Your task to perform on an android device: Clear the cart on amazon.com. Add "razer blade" to the cart on amazon.com, then select checkout. Image 0: 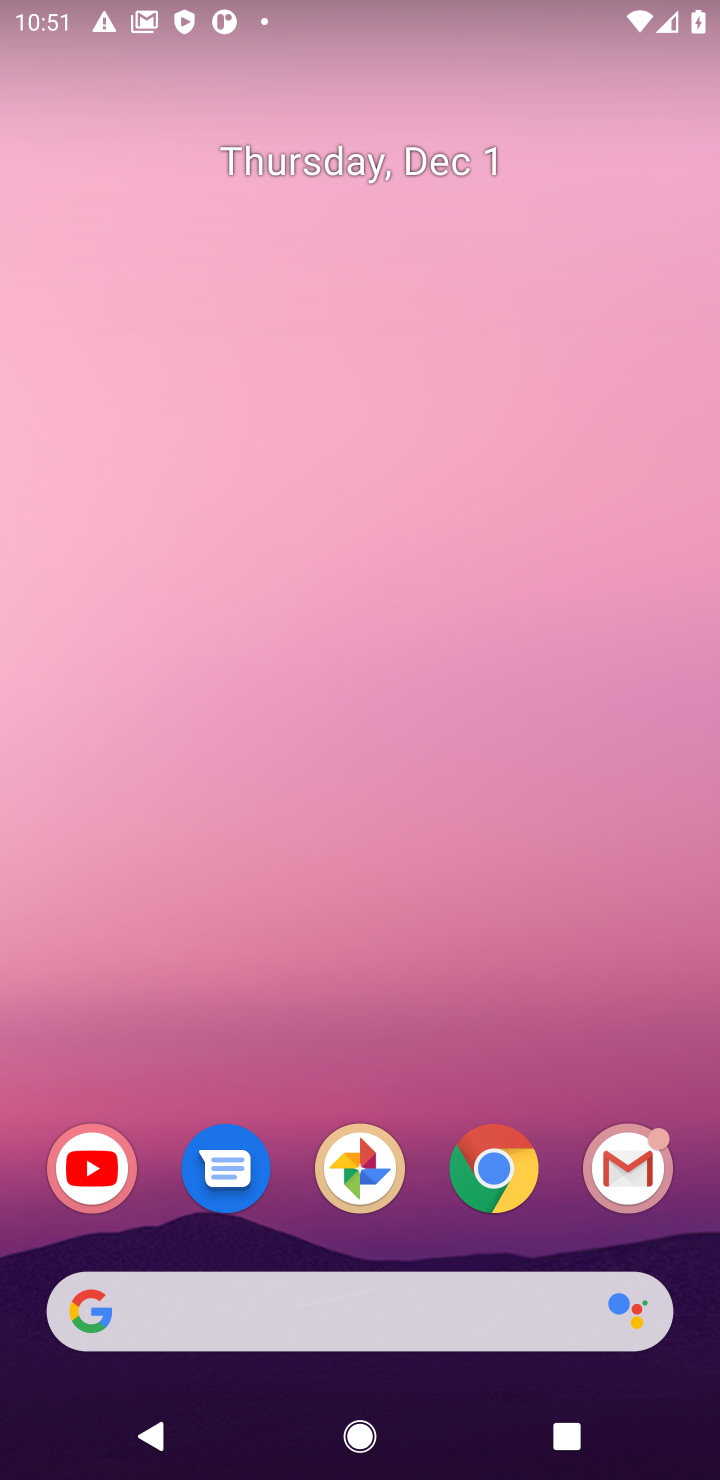
Step 0: click (504, 1194)
Your task to perform on an android device: Clear the cart on amazon.com. Add "razer blade" to the cart on amazon.com, then select checkout. Image 1: 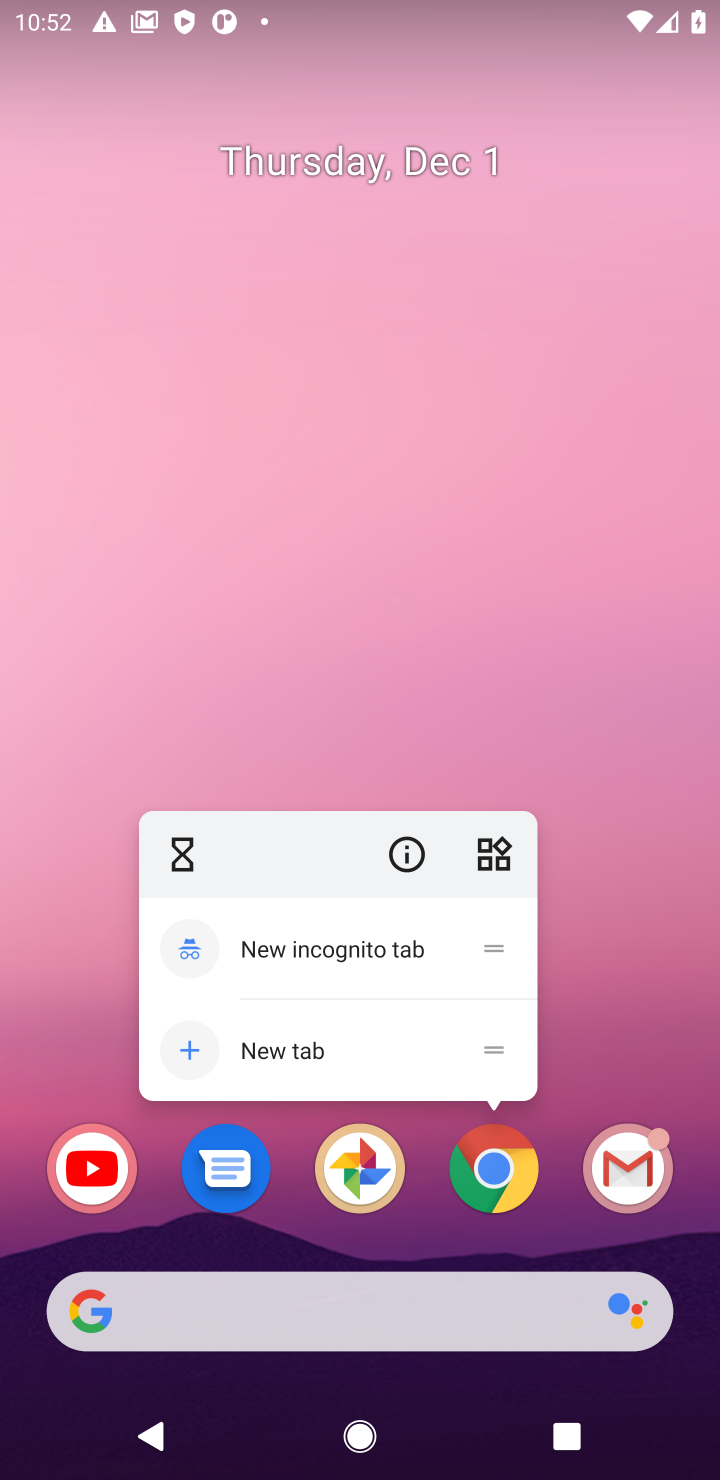
Step 1: click (502, 1194)
Your task to perform on an android device: Clear the cart on amazon.com. Add "razer blade" to the cart on amazon.com, then select checkout. Image 2: 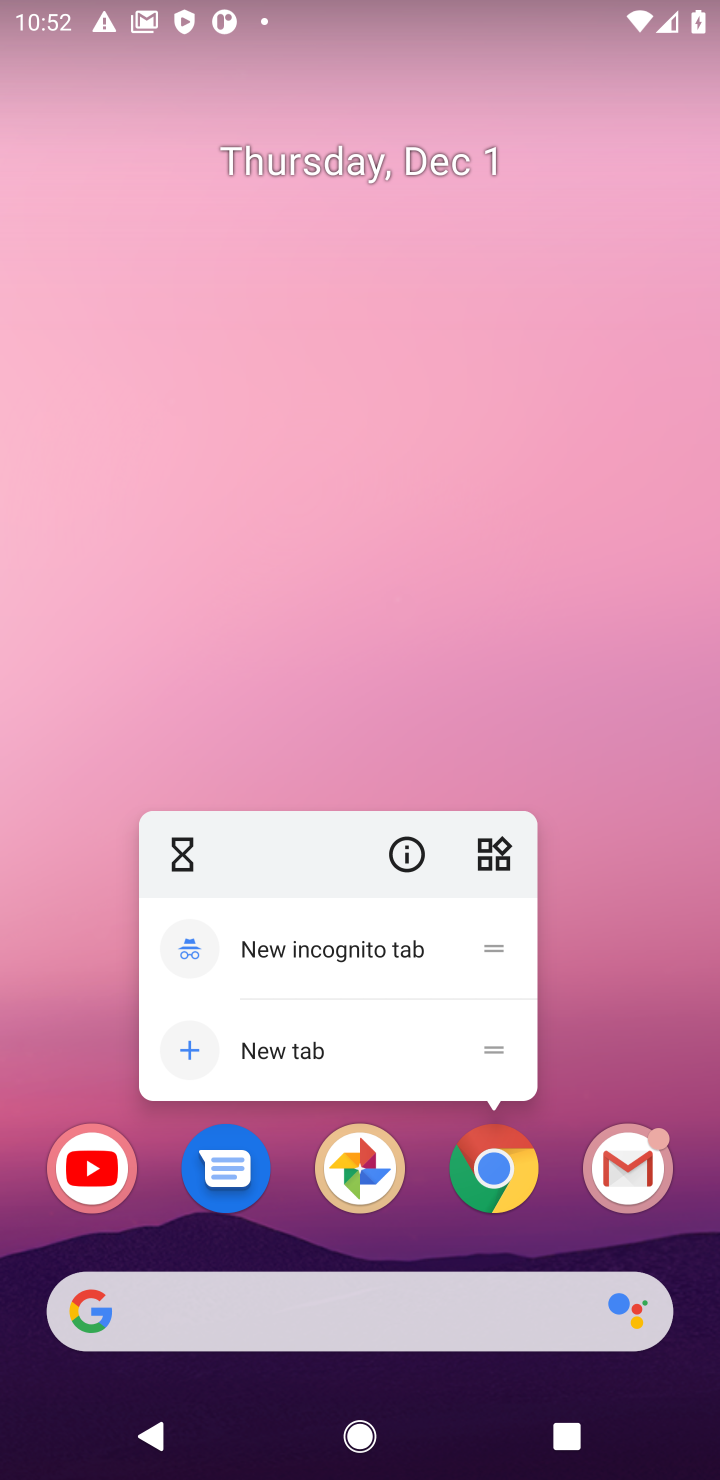
Step 2: click (508, 1173)
Your task to perform on an android device: Clear the cart on amazon.com. Add "razer blade" to the cart on amazon.com, then select checkout. Image 3: 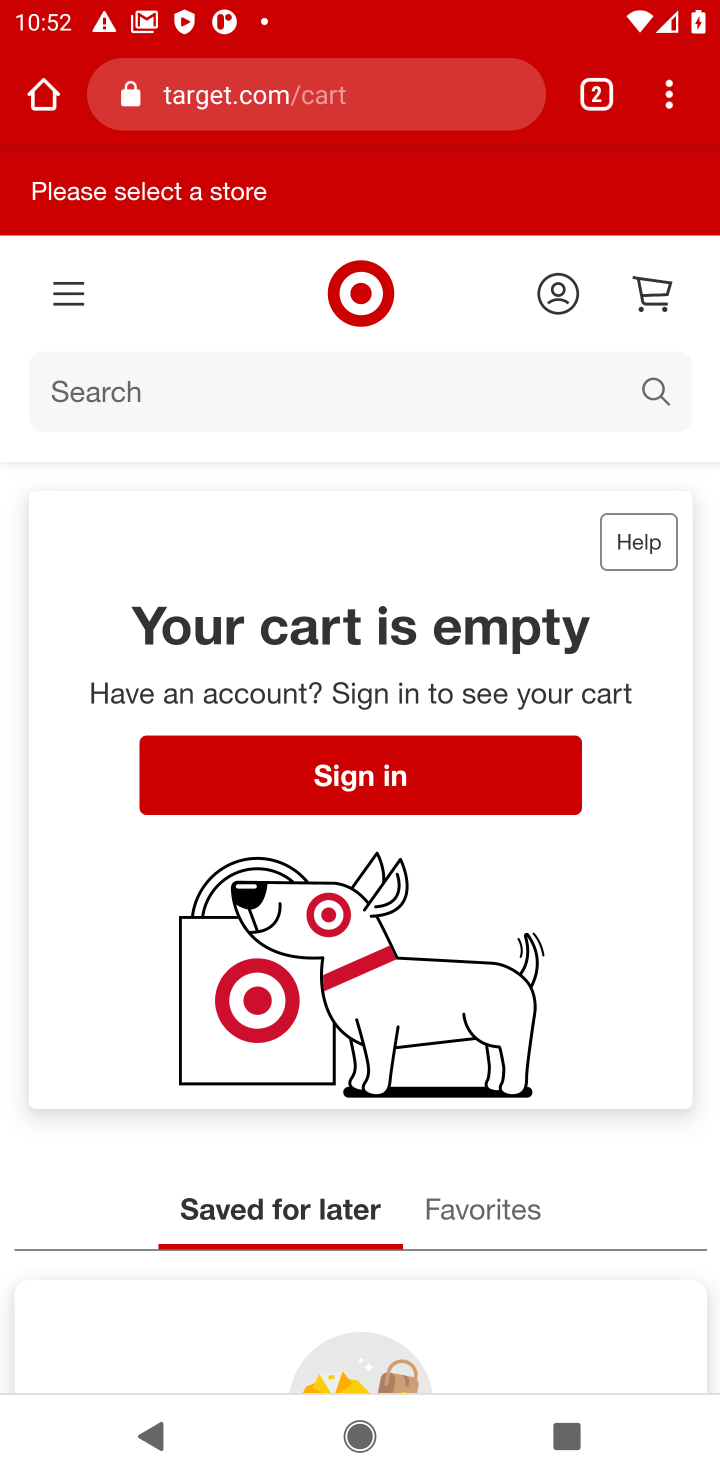
Step 3: click (261, 85)
Your task to perform on an android device: Clear the cart on amazon.com. Add "razer blade" to the cart on amazon.com, then select checkout. Image 4: 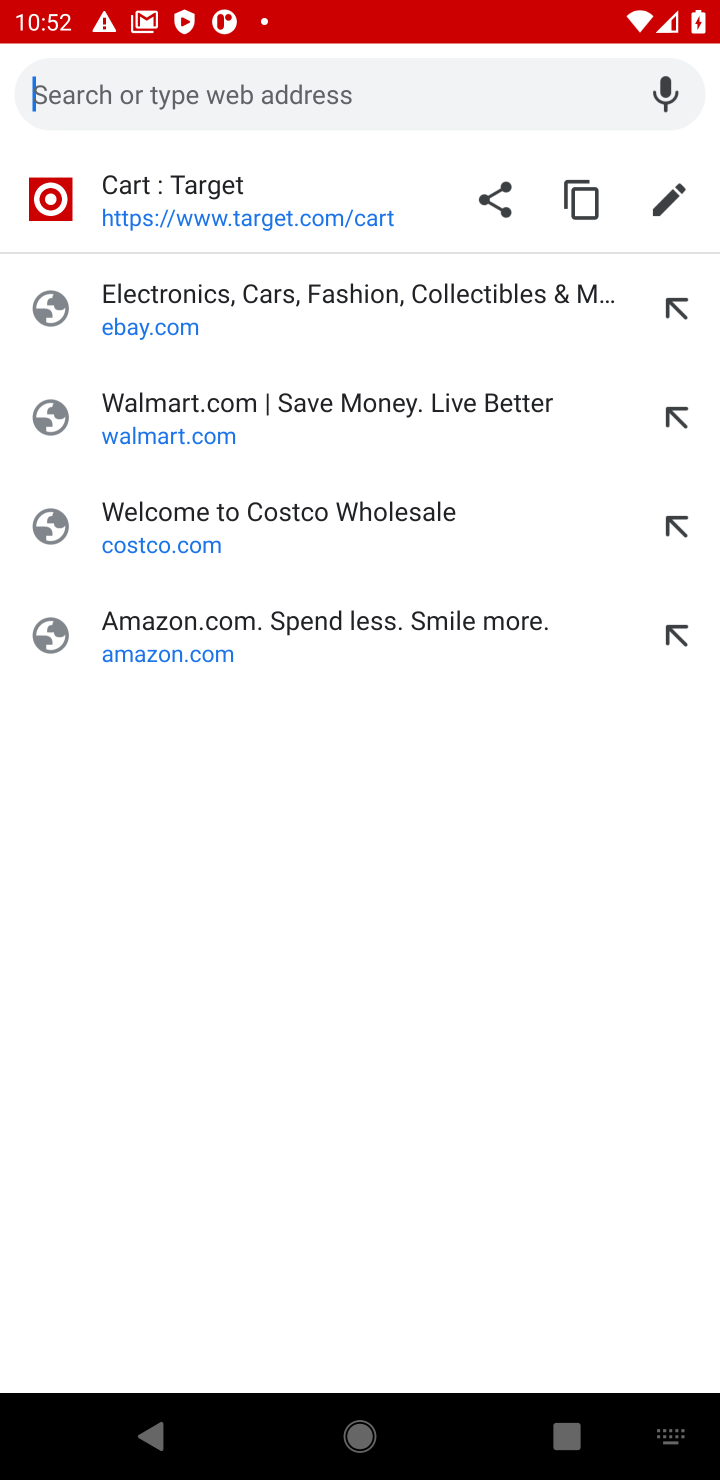
Step 4: click (151, 635)
Your task to perform on an android device: Clear the cart on amazon.com. Add "razer blade" to the cart on amazon.com, then select checkout. Image 5: 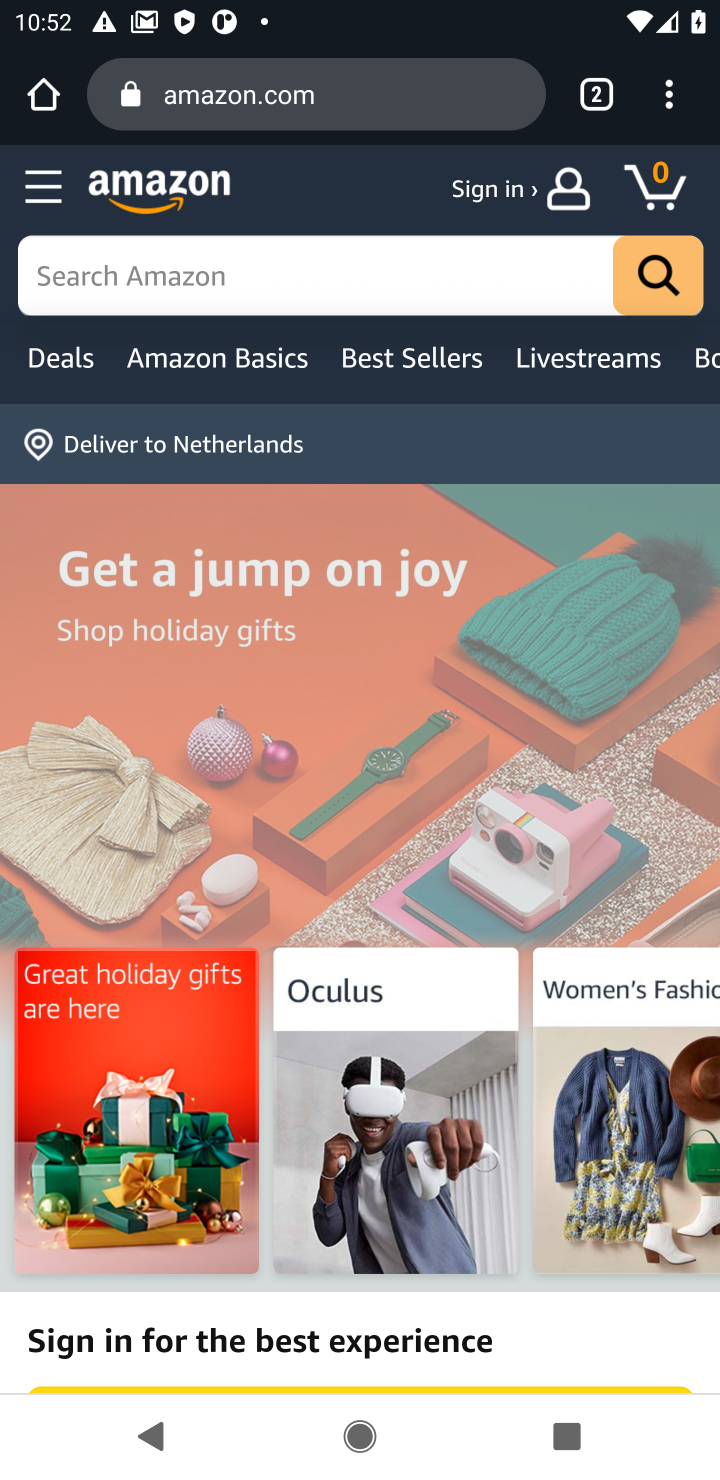
Step 5: click (652, 193)
Your task to perform on an android device: Clear the cart on amazon.com. Add "razer blade" to the cart on amazon.com, then select checkout. Image 6: 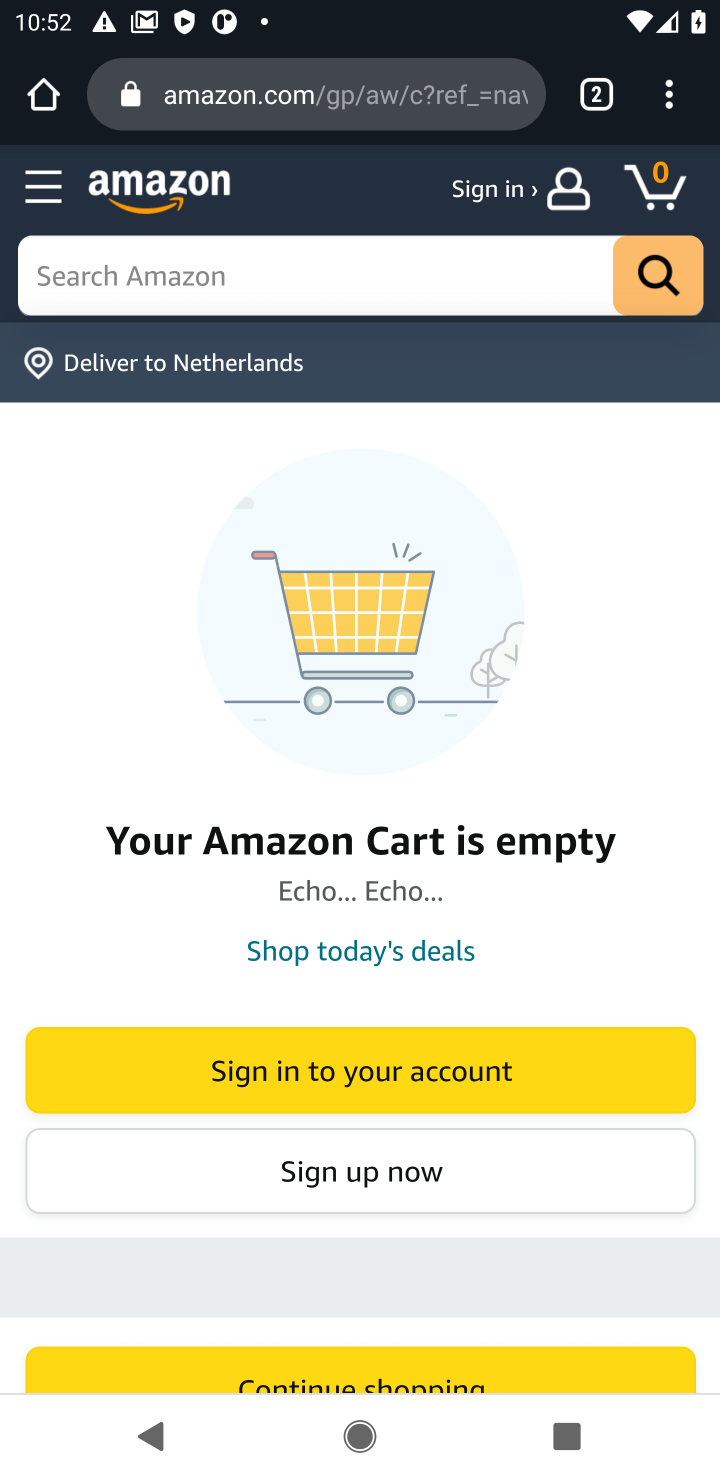
Step 6: click (145, 266)
Your task to perform on an android device: Clear the cart on amazon.com. Add "razer blade" to the cart on amazon.com, then select checkout. Image 7: 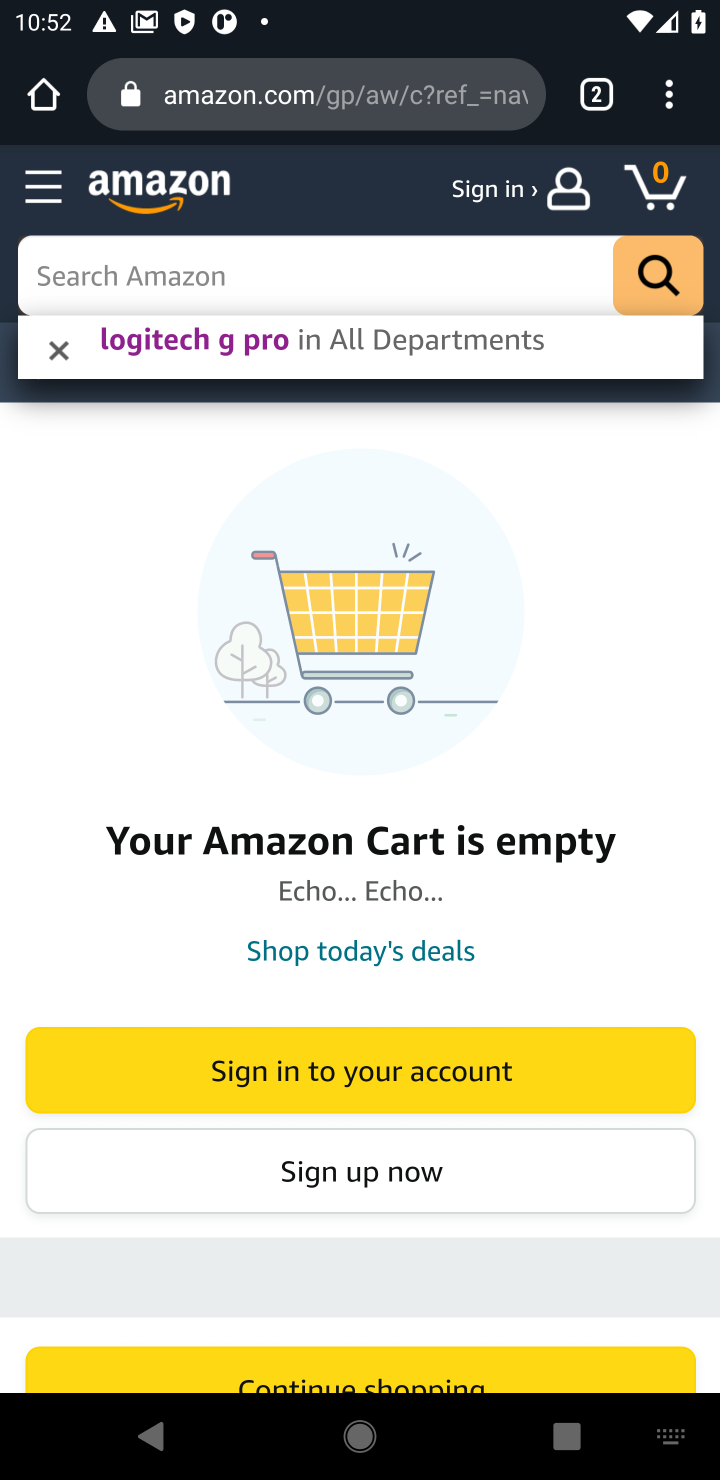
Step 7: type "razer blade"
Your task to perform on an android device: Clear the cart on amazon.com. Add "razer blade" to the cart on amazon.com, then select checkout. Image 8: 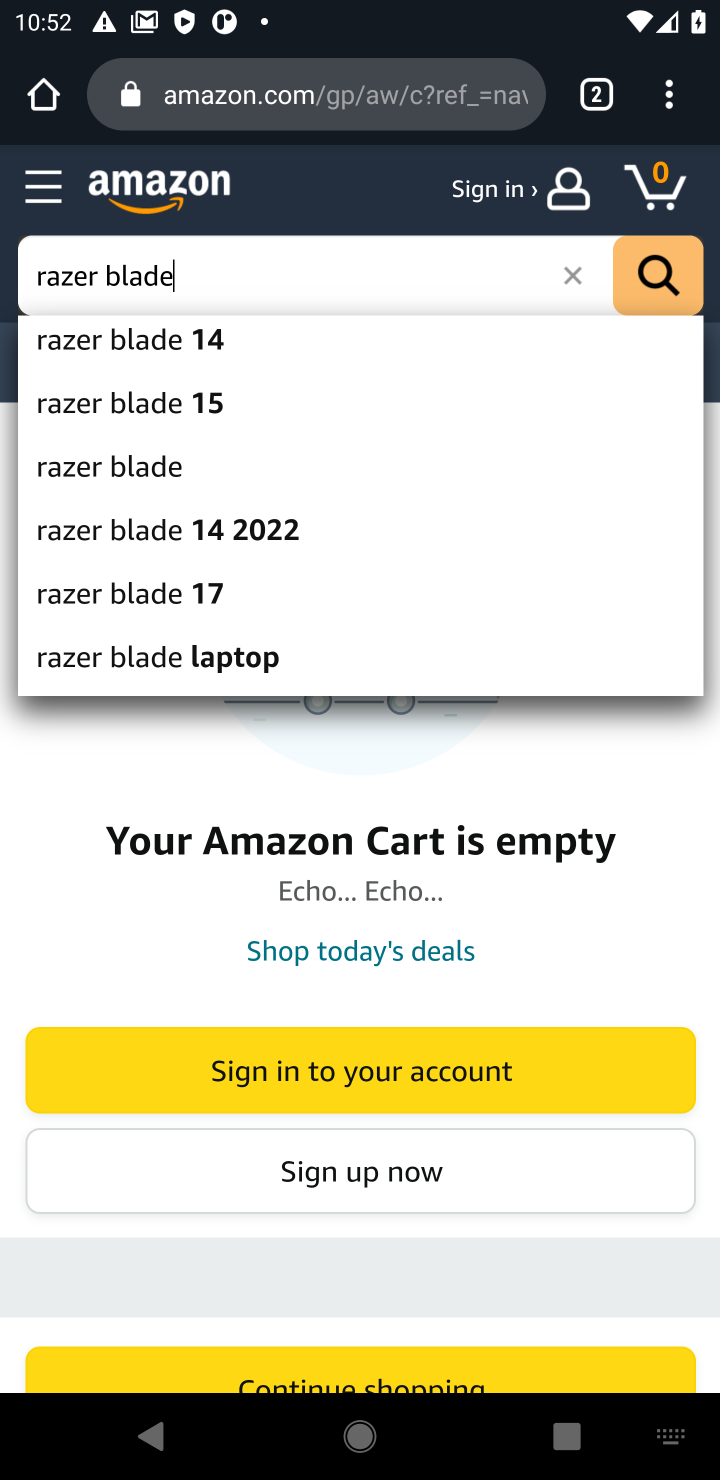
Step 8: click (135, 354)
Your task to perform on an android device: Clear the cart on amazon.com. Add "razer blade" to the cart on amazon.com, then select checkout. Image 9: 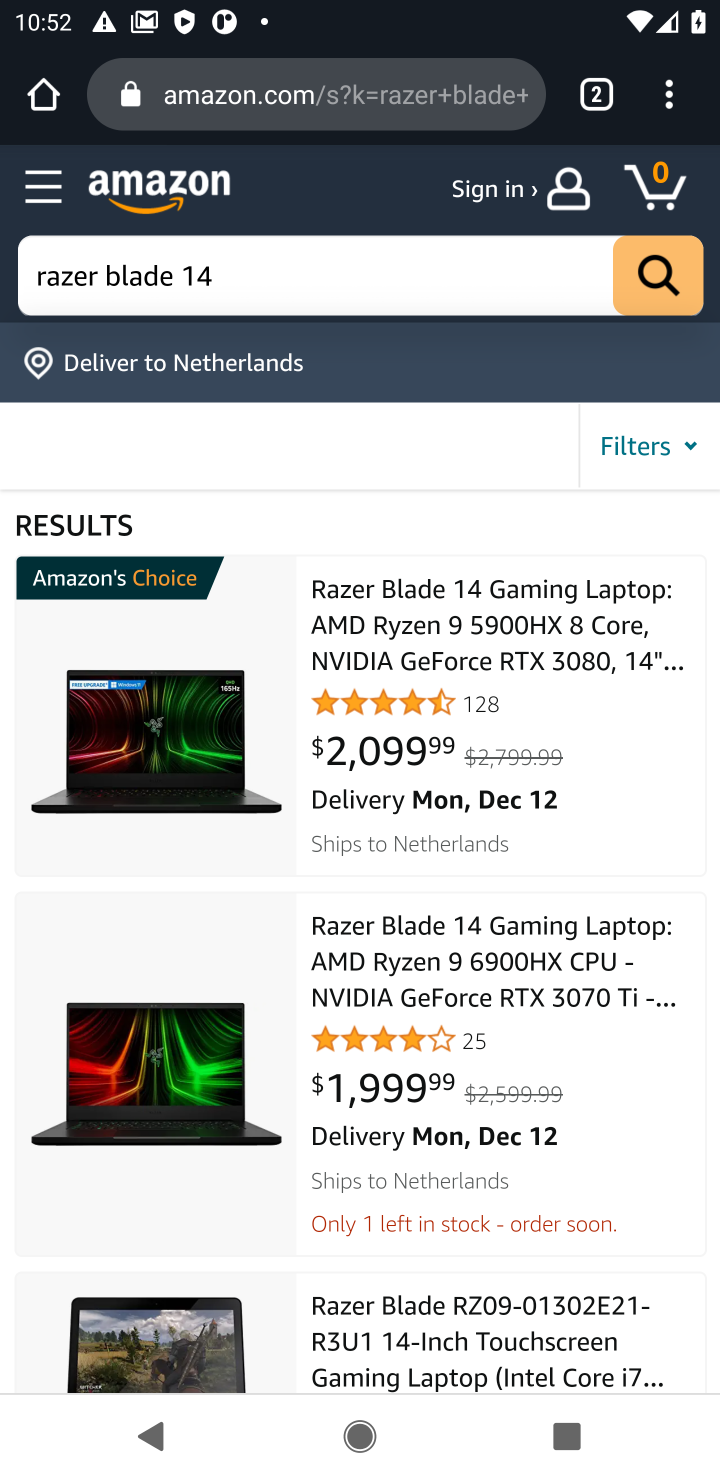
Step 9: click (454, 659)
Your task to perform on an android device: Clear the cart on amazon.com. Add "razer blade" to the cart on amazon.com, then select checkout. Image 10: 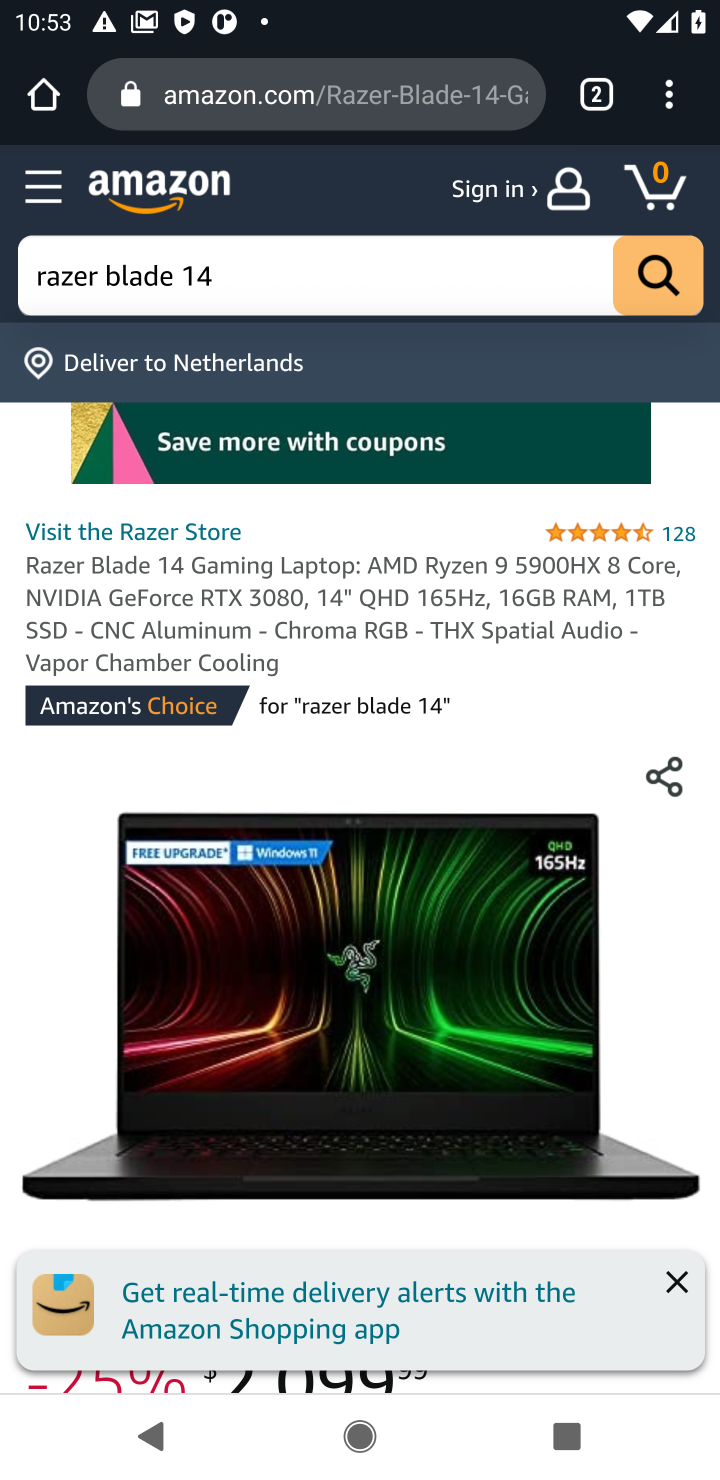
Step 10: drag from (361, 861) to (367, 360)
Your task to perform on an android device: Clear the cart on amazon.com. Add "razer blade" to the cart on amazon.com, then select checkout. Image 11: 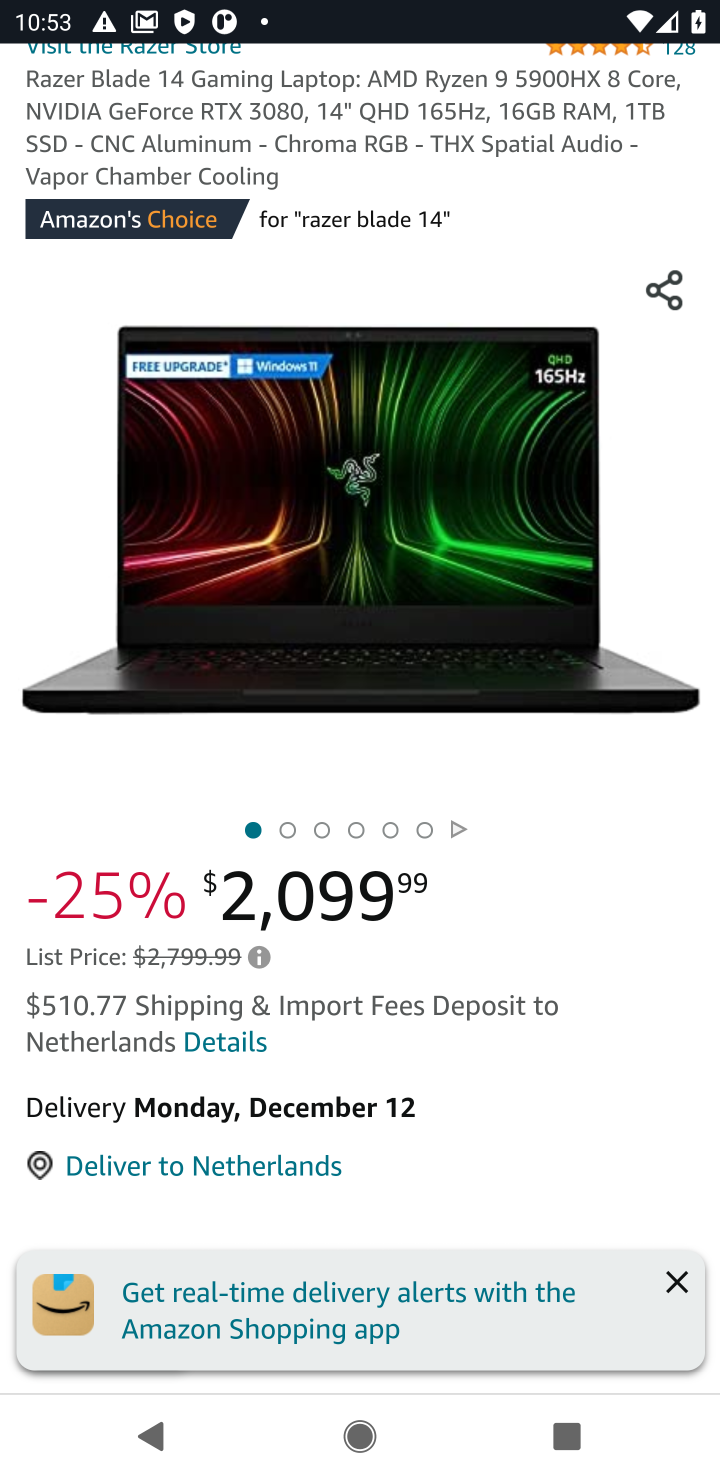
Step 11: drag from (348, 987) to (342, 335)
Your task to perform on an android device: Clear the cart on amazon.com. Add "razer blade" to the cart on amazon.com, then select checkout. Image 12: 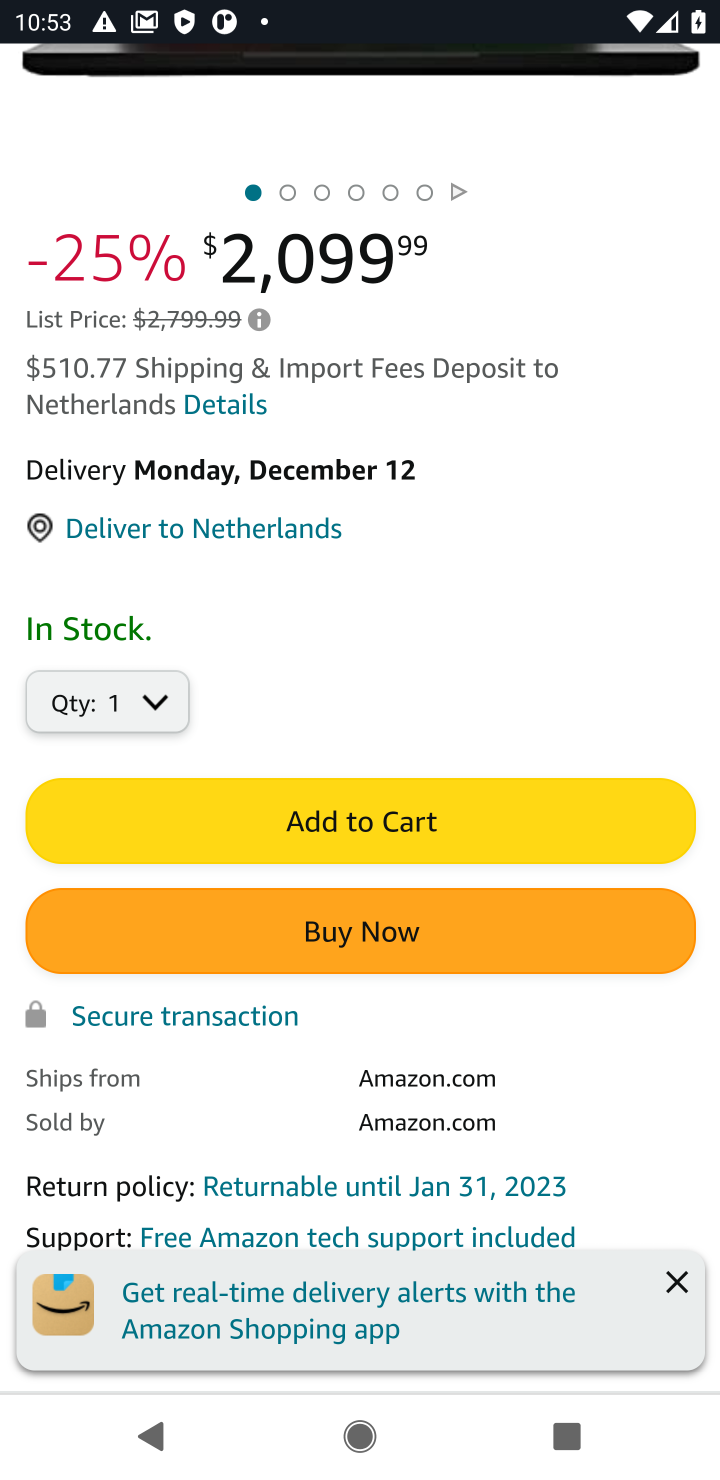
Step 12: click (348, 812)
Your task to perform on an android device: Clear the cart on amazon.com. Add "razer blade" to the cart on amazon.com, then select checkout. Image 13: 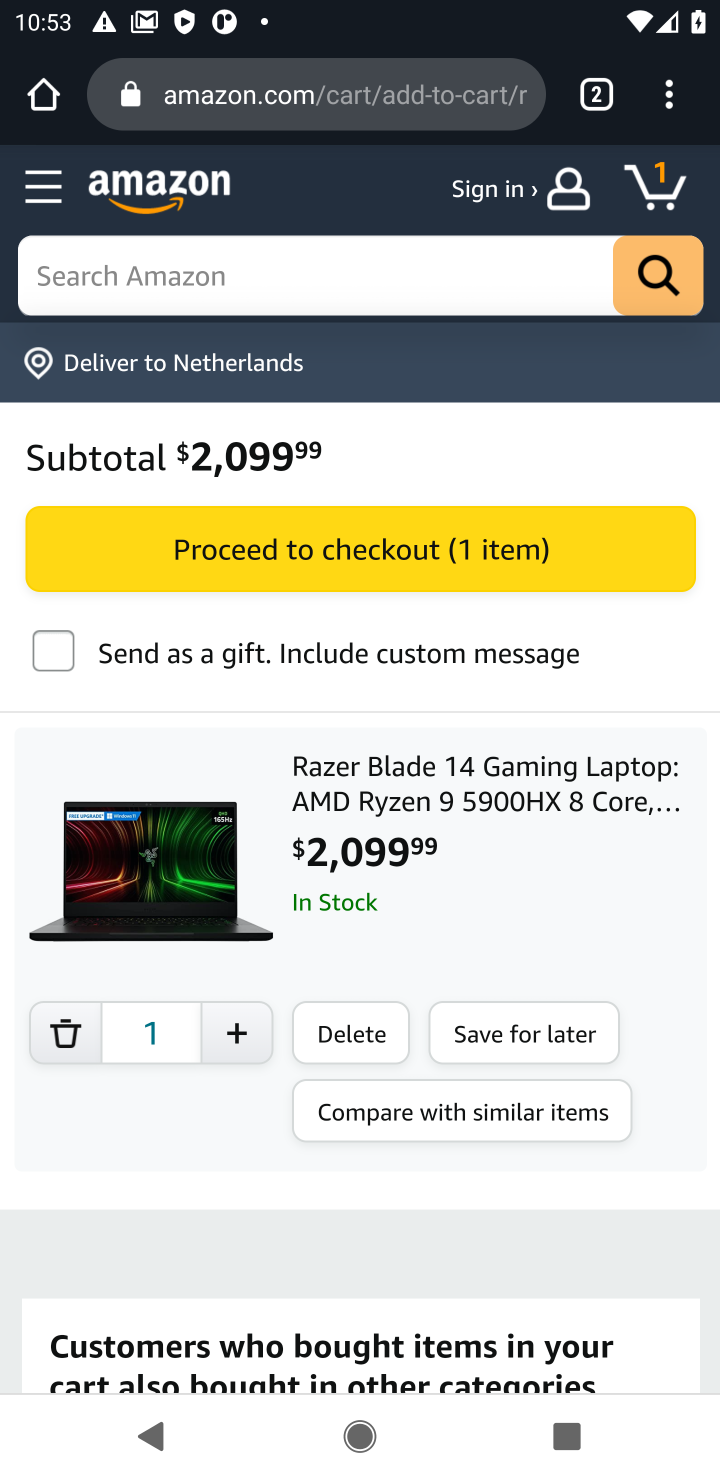
Step 13: click (391, 542)
Your task to perform on an android device: Clear the cart on amazon.com. Add "razer blade" to the cart on amazon.com, then select checkout. Image 14: 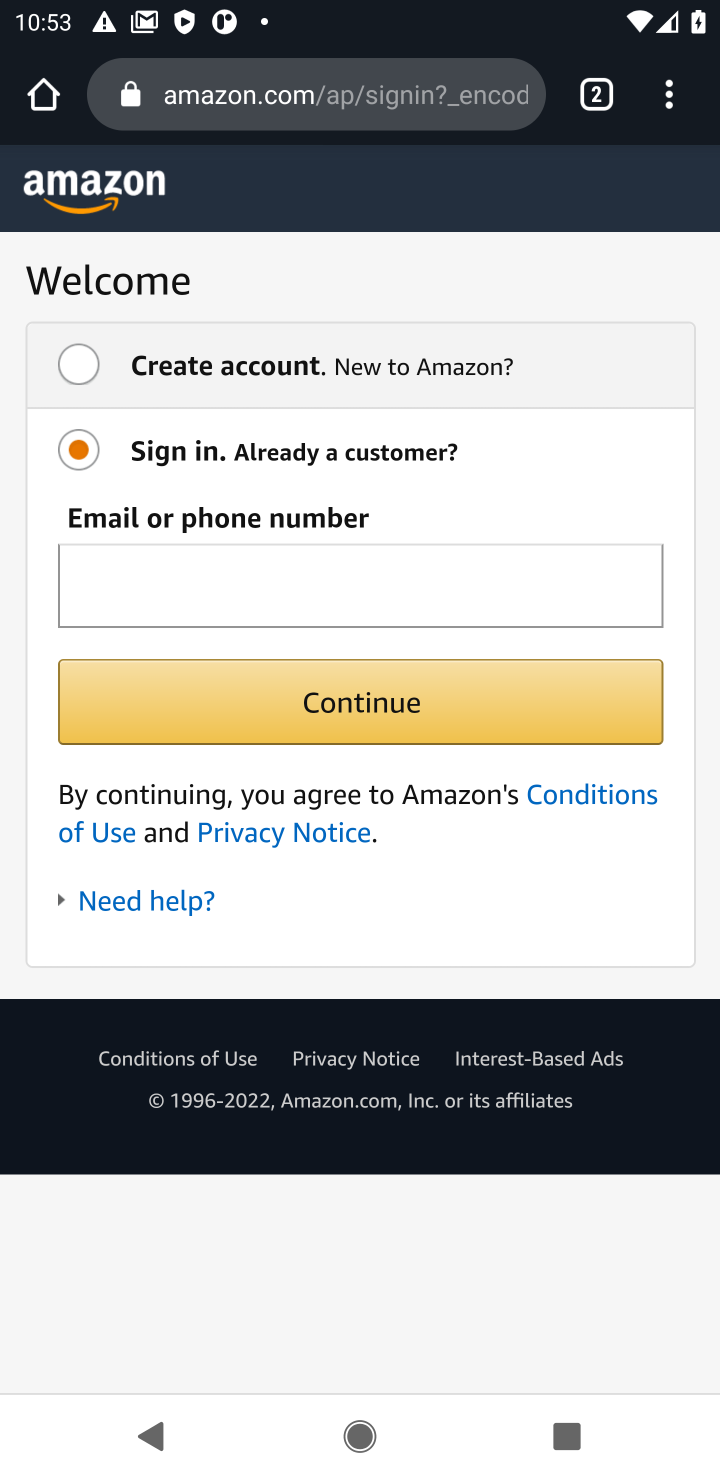
Step 14: task complete